Your task to perform on an android device: set the stopwatch Image 0: 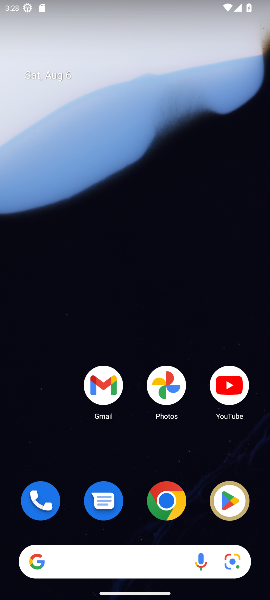
Step 0: drag from (39, 395) to (147, 128)
Your task to perform on an android device: set the stopwatch Image 1: 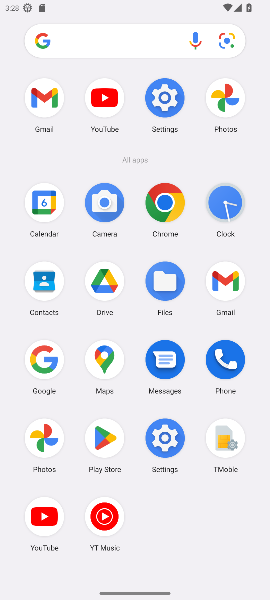
Step 1: click (230, 203)
Your task to perform on an android device: set the stopwatch Image 2: 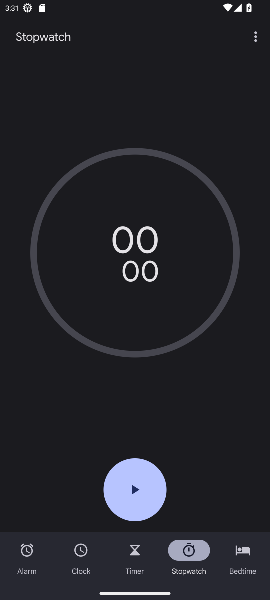
Step 2: task complete